Your task to perform on an android device: open app "Life360: Find Family & Friends" (install if not already installed) and go to login screen Image 0: 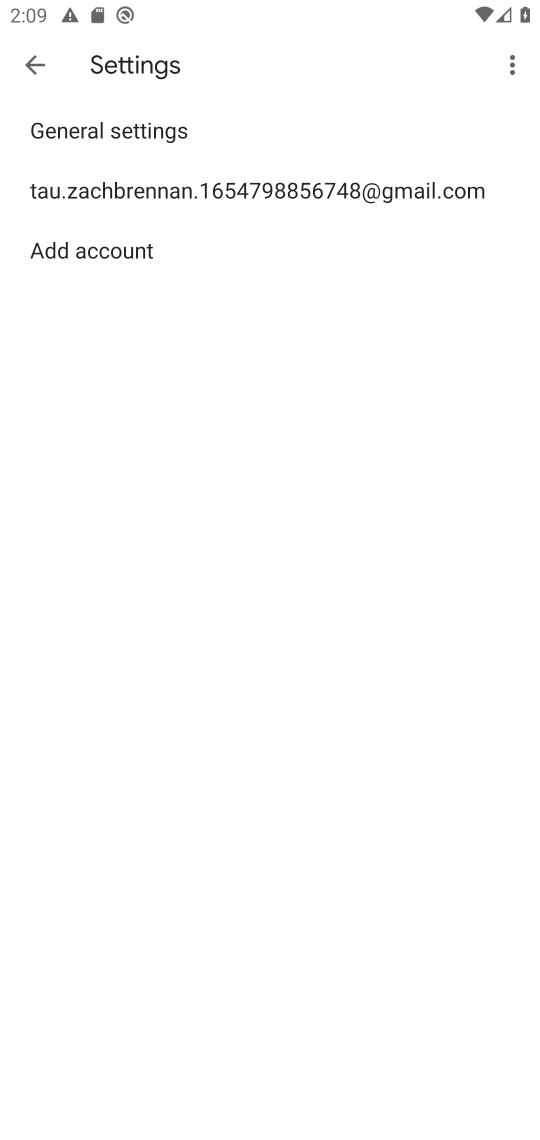
Step 0: press home button
Your task to perform on an android device: open app "Life360: Find Family & Friends" (install if not already installed) and go to login screen Image 1: 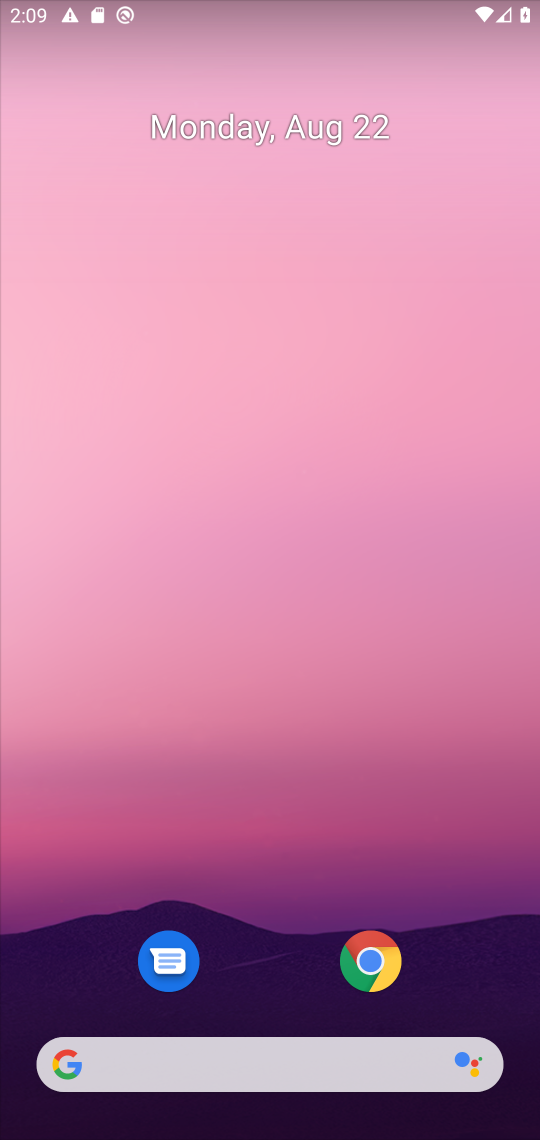
Step 1: drag from (442, 986) to (417, 87)
Your task to perform on an android device: open app "Life360: Find Family & Friends" (install if not already installed) and go to login screen Image 2: 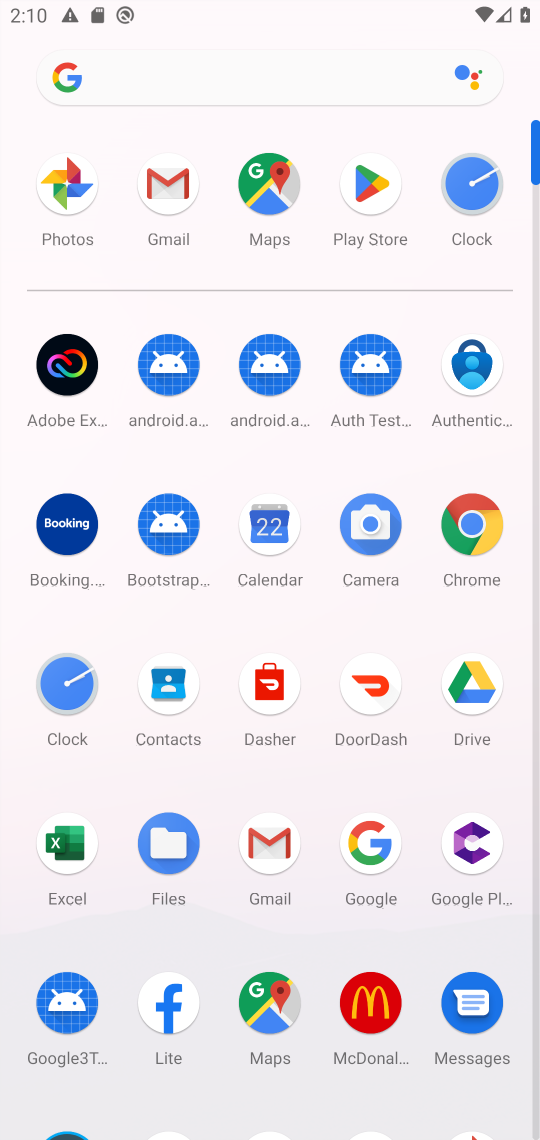
Step 2: click (366, 190)
Your task to perform on an android device: open app "Life360: Find Family & Friends" (install if not already installed) and go to login screen Image 3: 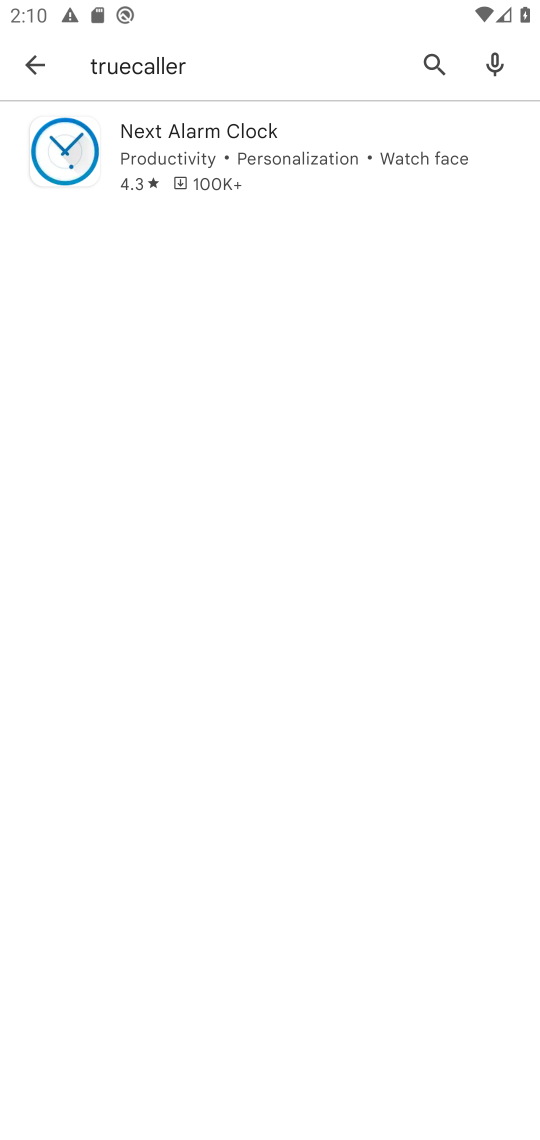
Step 3: press back button
Your task to perform on an android device: open app "Life360: Find Family & Friends" (install if not already installed) and go to login screen Image 4: 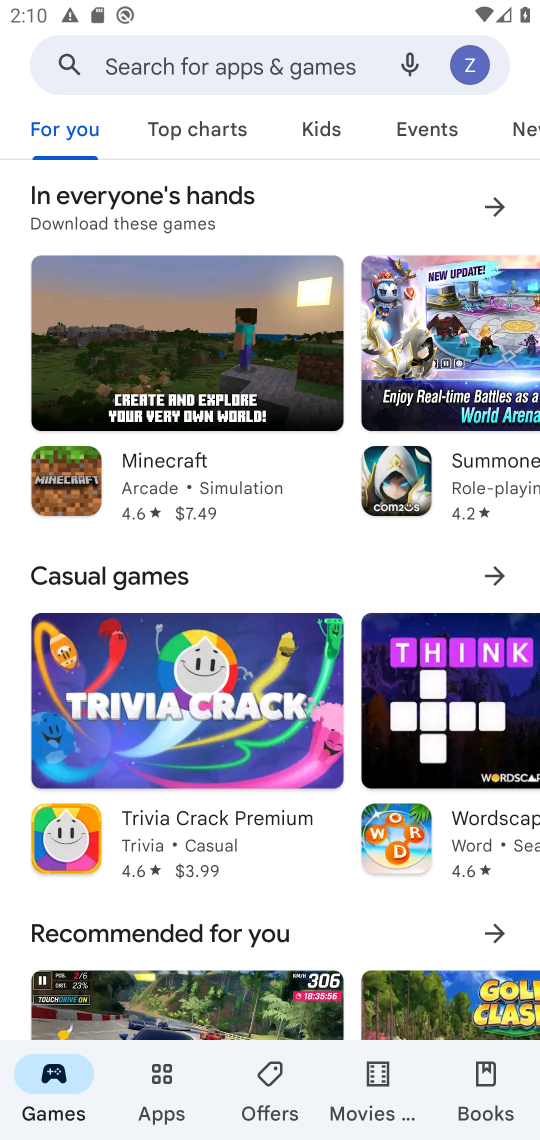
Step 4: click (264, 67)
Your task to perform on an android device: open app "Life360: Find Family & Friends" (install if not already installed) and go to login screen Image 5: 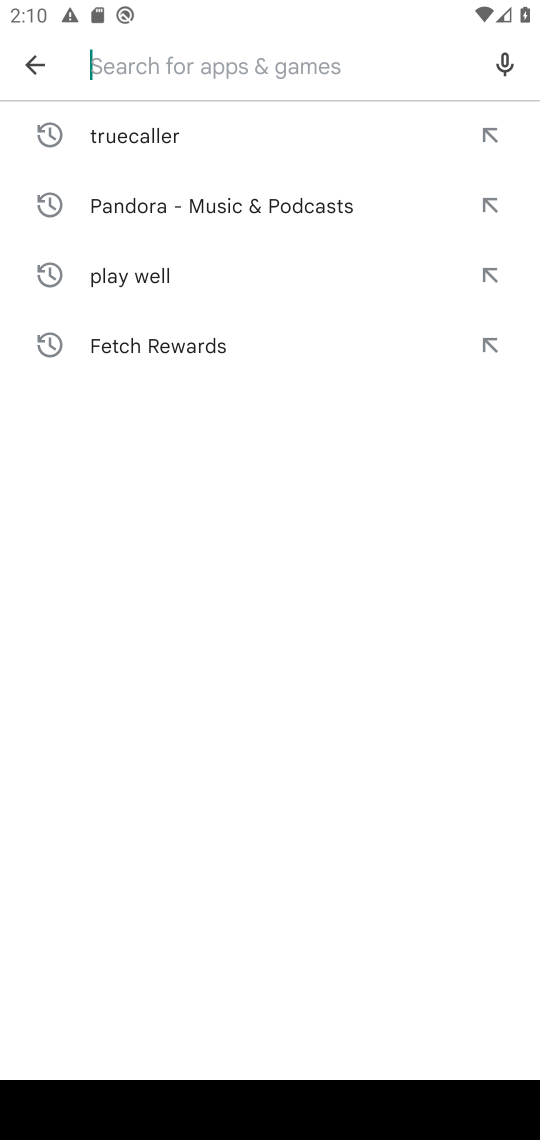
Step 5: type "Life360: Find Family & Friends"
Your task to perform on an android device: open app "Life360: Find Family & Friends" (install if not already installed) and go to login screen Image 6: 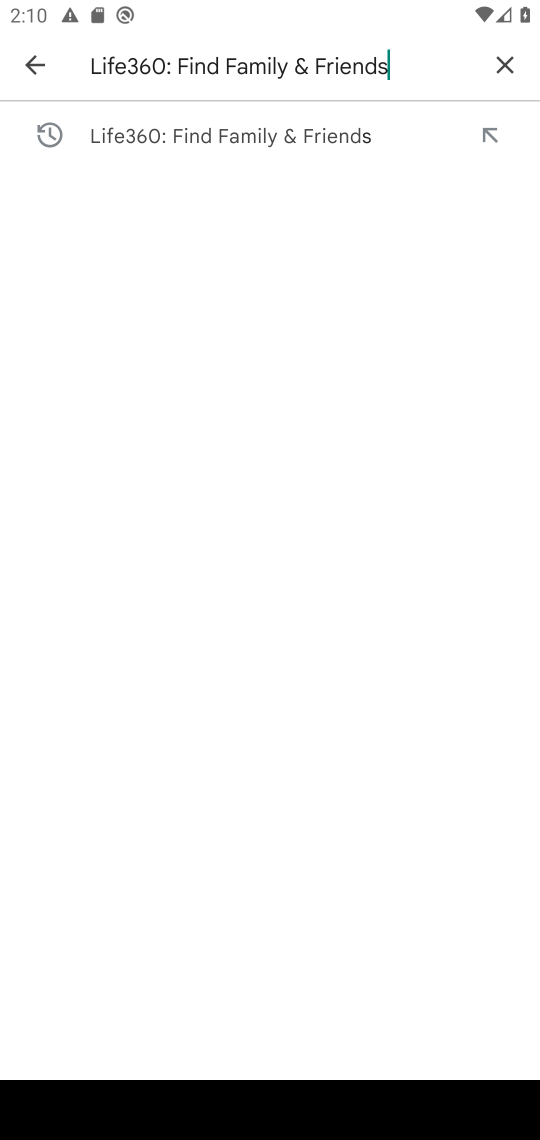
Step 6: press enter
Your task to perform on an android device: open app "Life360: Find Family & Friends" (install if not already installed) and go to login screen Image 7: 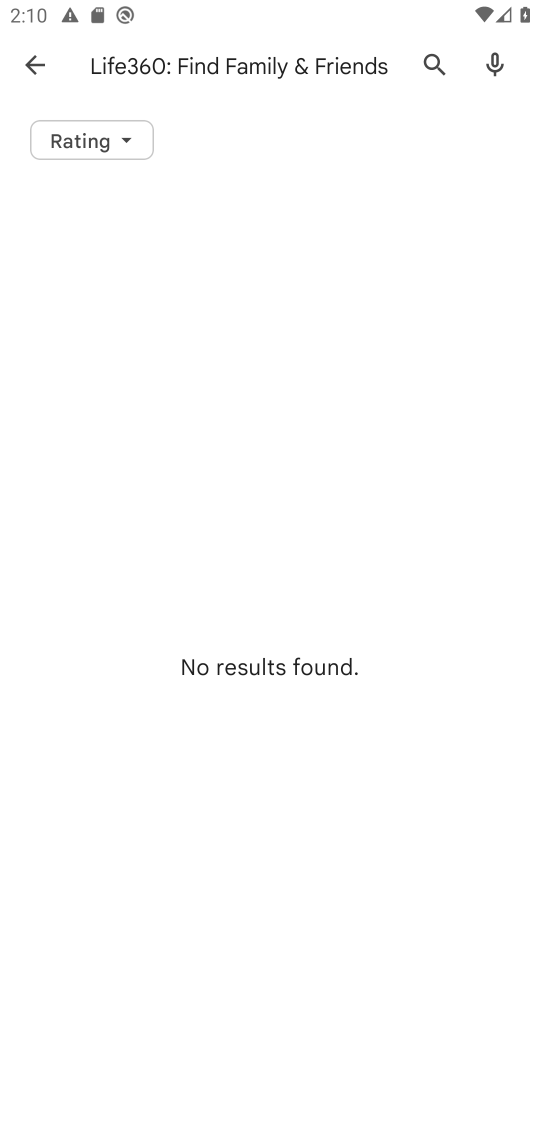
Step 7: task complete